Your task to perform on an android device: Open display settings Image 0: 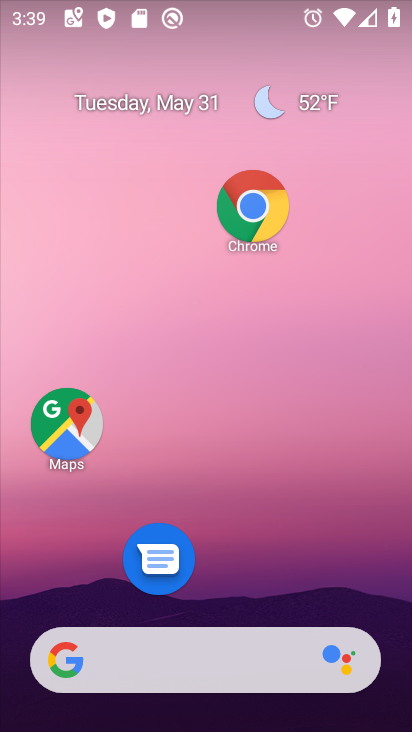
Step 0: drag from (207, 597) to (198, 142)
Your task to perform on an android device: Open display settings Image 1: 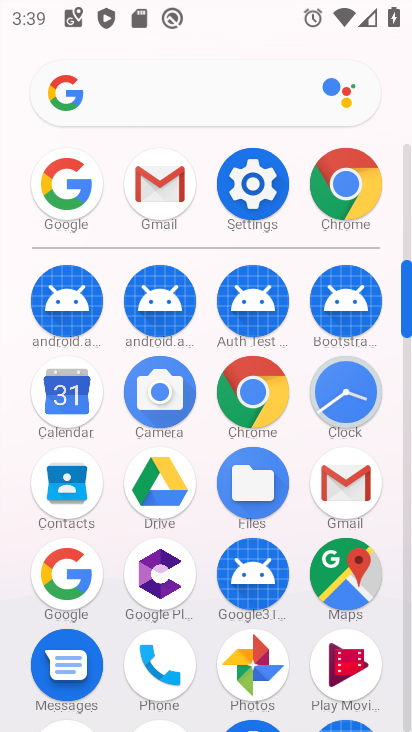
Step 1: click (239, 179)
Your task to perform on an android device: Open display settings Image 2: 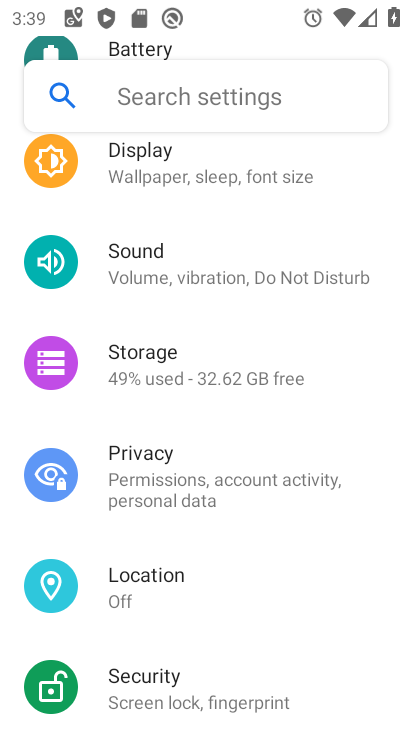
Step 2: drag from (197, 261) to (198, 494)
Your task to perform on an android device: Open display settings Image 3: 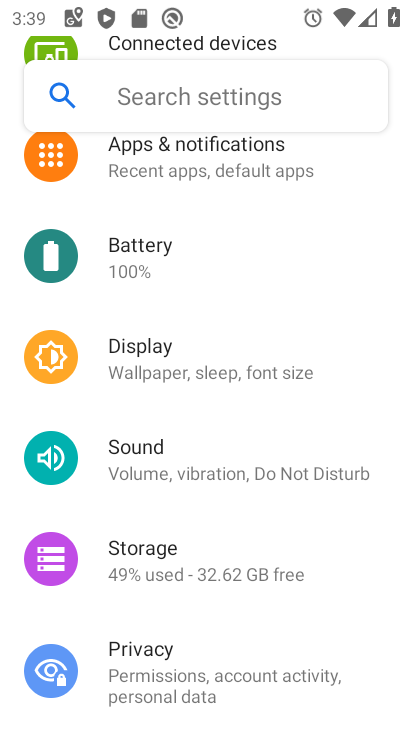
Step 3: click (186, 379)
Your task to perform on an android device: Open display settings Image 4: 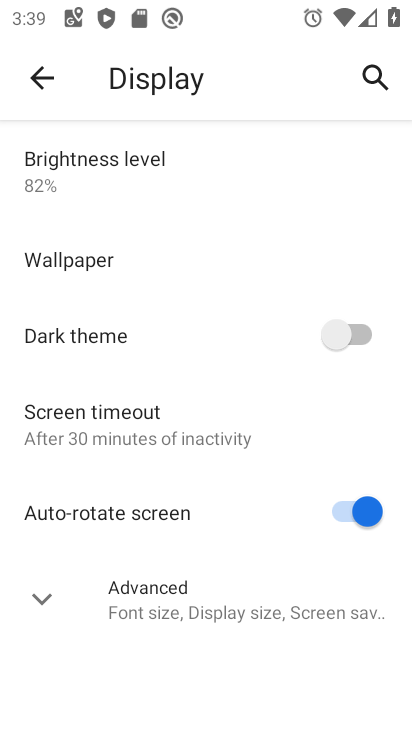
Step 4: task complete